Your task to perform on an android device: Open Amazon Image 0: 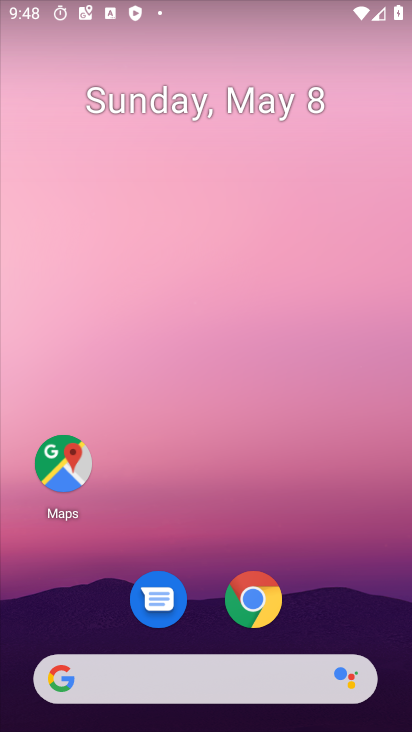
Step 0: drag from (244, 636) to (358, 84)
Your task to perform on an android device: Open Amazon Image 1: 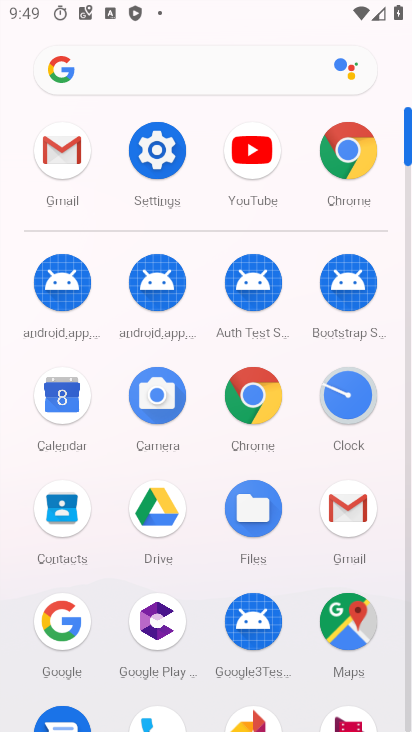
Step 1: drag from (224, 492) to (211, 266)
Your task to perform on an android device: Open Amazon Image 2: 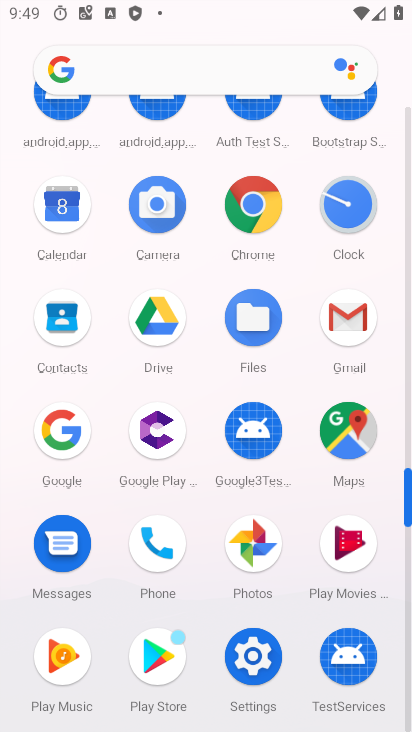
Step 2: click (272, 229)
Your task to perform on an android device: Open Amazon Image 3: 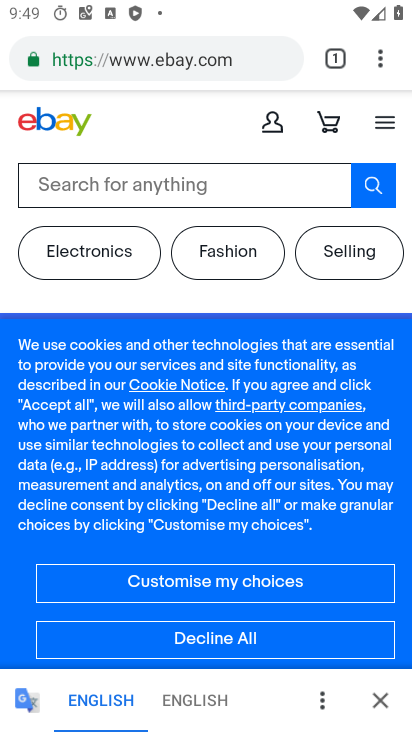
Step 3: click (162, 54)
Your task to perform on an android device: Open Amazon Image 4: 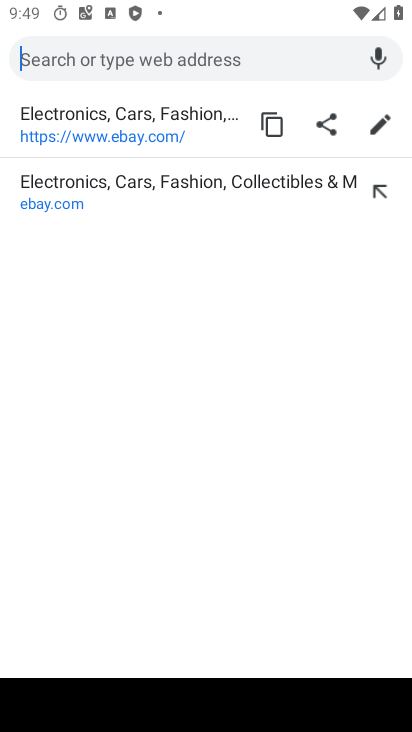
Step 4: type "amazon"
Your task to perform on an android device: Open Amazon Image 5: 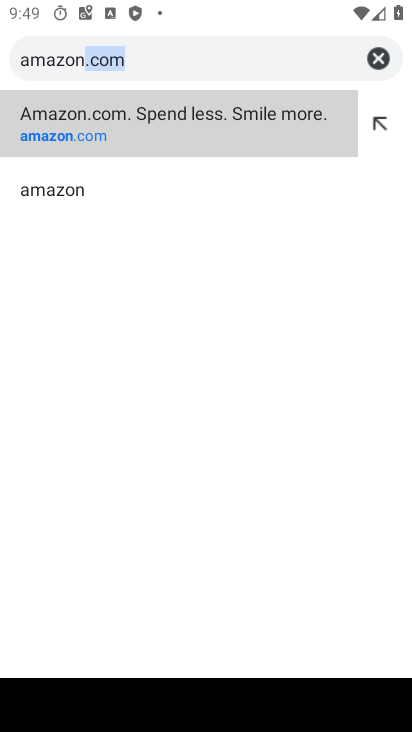
Step 5: click (299, 131)
Your task to perform on an android device: Open Amazon Image 6: 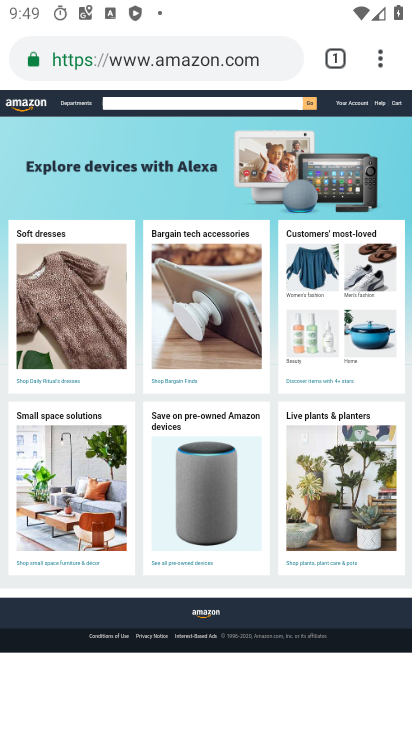
Step 6: task complete